Your task to perform on an android device: Show me the alarms in the clock app Image 0: 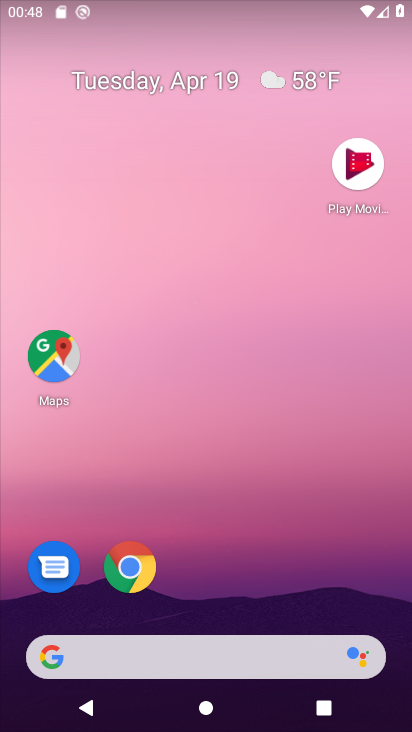
Step 0: drag from (217, 514) to (232, 230)
Your task to perform on an android device: Show me the alarms in the clock app Image 1: 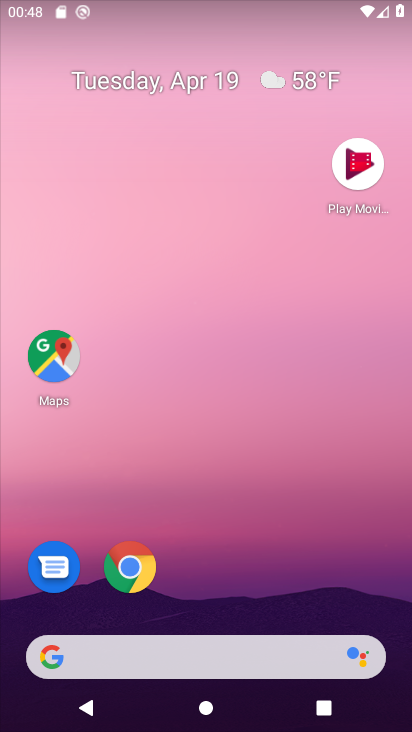
Step 1: drag from (252, 617) to (252, 255)
Your task to perform on an android device: Show me the alarms in the clock app Image 2: 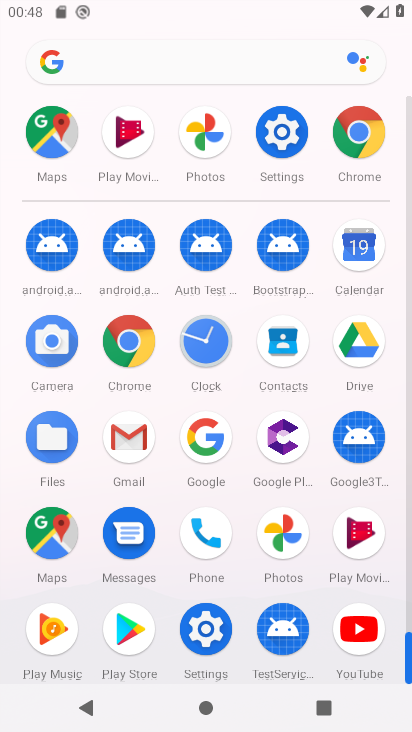
Step 2: click (203, 345)
Your task to perform on an android device: Show me the alarms in the clock app Image 3: 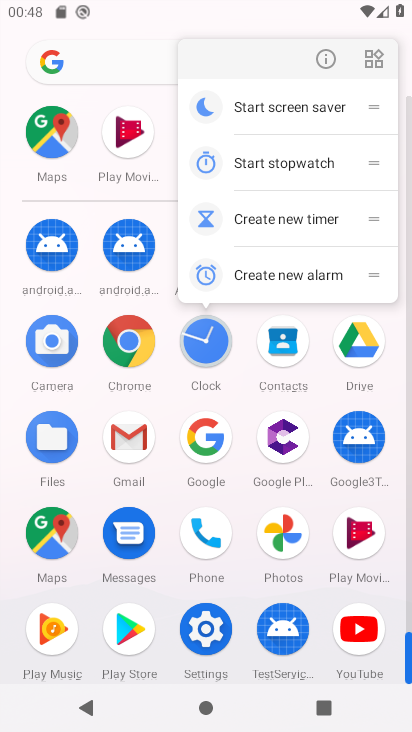
Step 3: click (326, 66)
Your task to perform on an android device: Show me the alarms in the clock app Image 4: 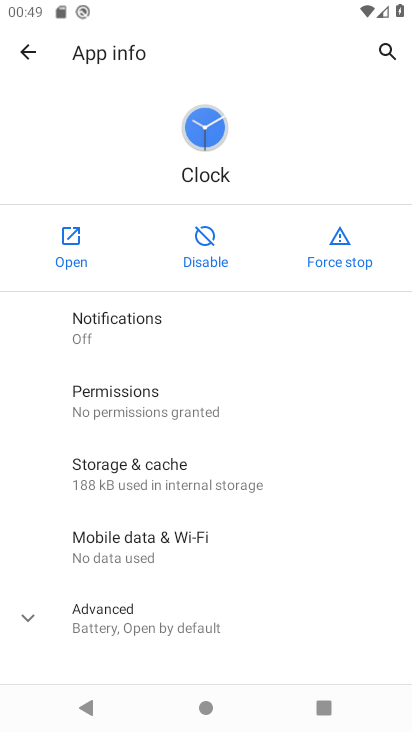
Step 4: click (82, 251)
Your task to perform on an android device: Show me the alarms in the clock app Image 5: 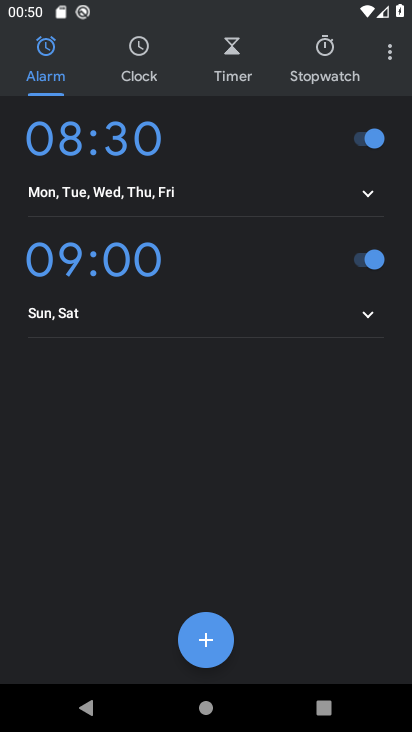
Step 5: task complete